Your task to perform on an android device: star an email in the gmail app Image 0: 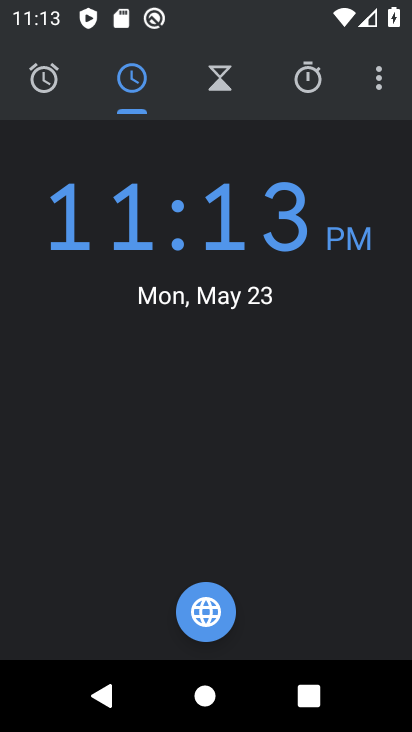
Step 0: press home button
Your task to perform on an android device: star an email in the gmail app Image 1: 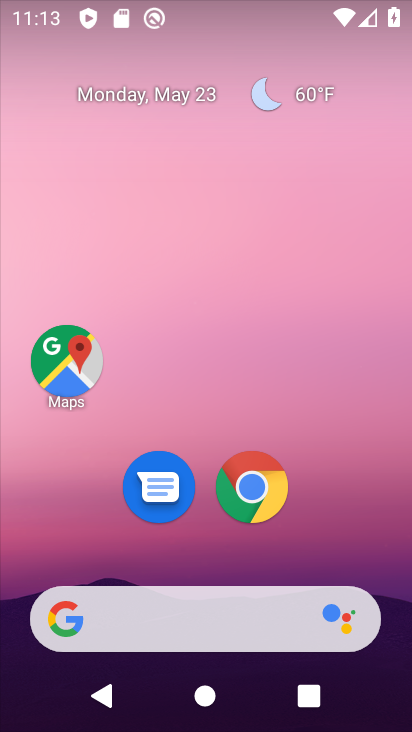
Step 1: drag from (92, 545) to (191, 119)
Your task to perform on an android device: star an email in the gmail app Image 2: 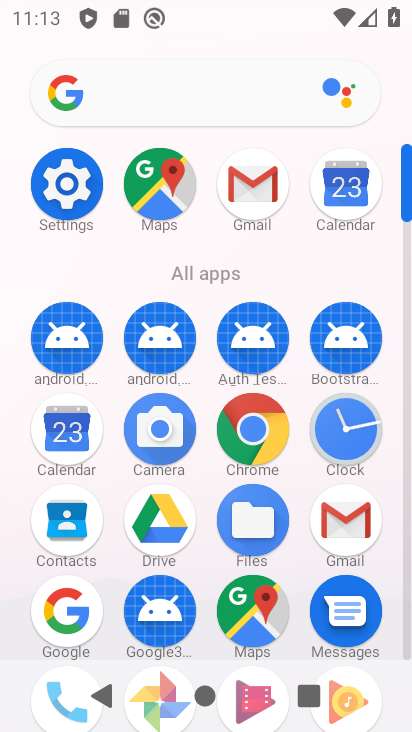
Step 2: click (337, 523)
Your task to perform on an android device: star an email in the gmail app Image 3: 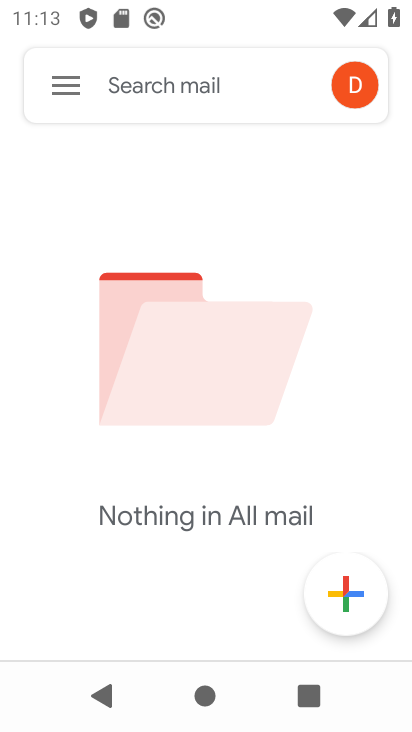
Step 3: click (81, 81)
Your task to perform on an android device: star an email in the gmail app Image 4: 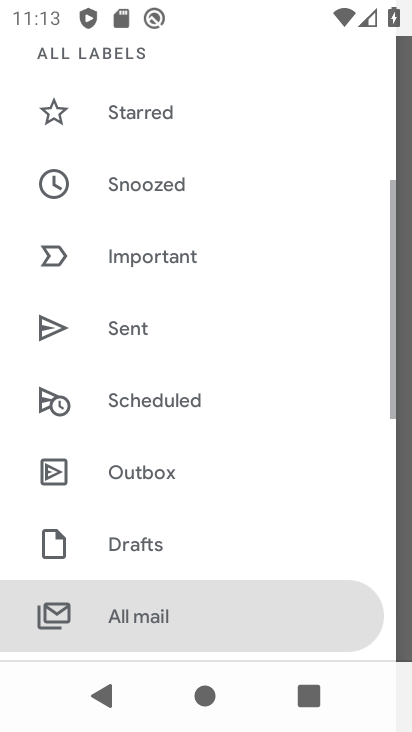
Step 4: drag from (179, 608) to (269, 307)
Your task to perform on an android device: star an email in the gmail app Image 5: 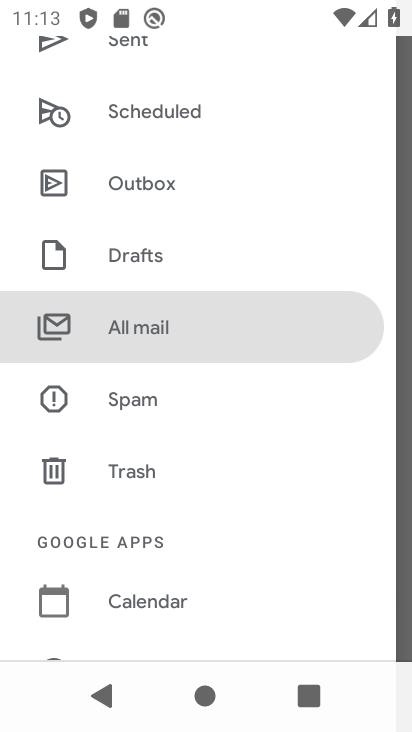
Step 5: click (230, 340)
Your task to perform on an android device: star an email in the gmail app Image 6: 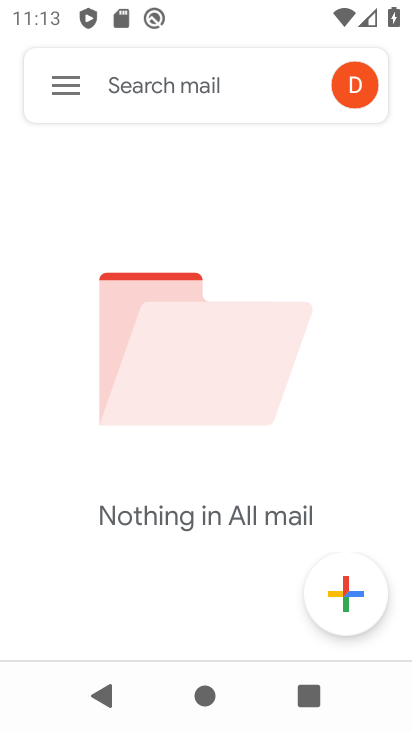
Step 6: task complete